Your task to perform on an android device: install app "WhatsApp Messenger" Image 0: 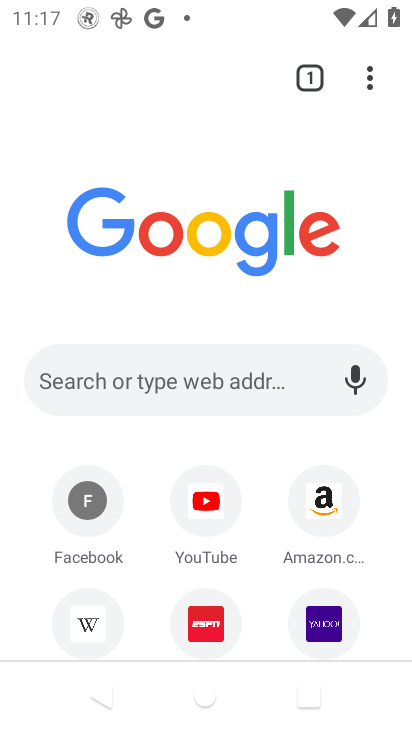
Step 0: press back button
Your task to perform on an android device: install app "WhatsApp Messenger" Image 1: 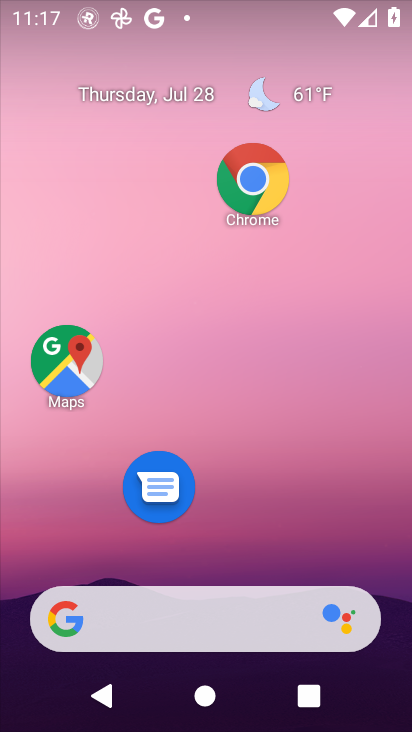
Step 1: click (160, 99)
Your task to perform on an android device: install app "WhatsApp Messenger" Image 2: 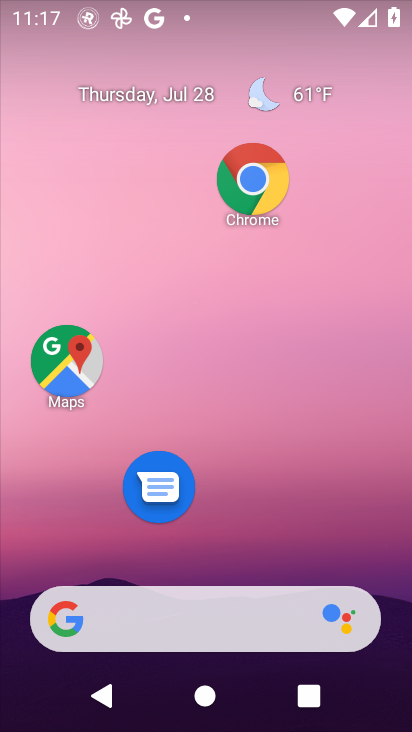
Step 2: drag from (214, 361) to (202, 45)
Your task to perform on an android device: install app "WhatsApp Messenger" Image 3: 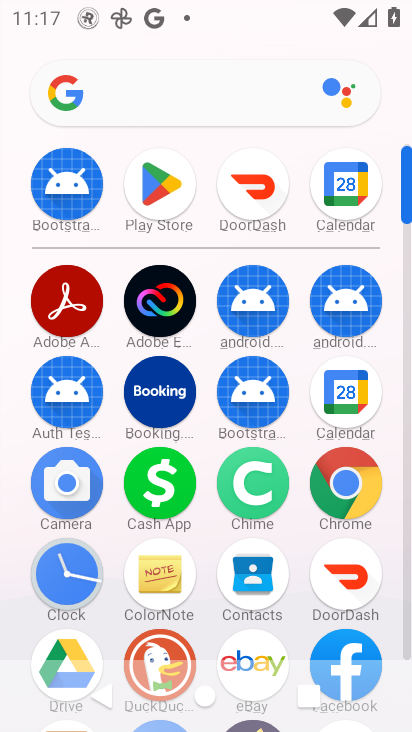
Step 3: drag from (300, 271) to (316, 583)
Your task to perform on an android device: install app "WhatsApp Messenger" Image 4: 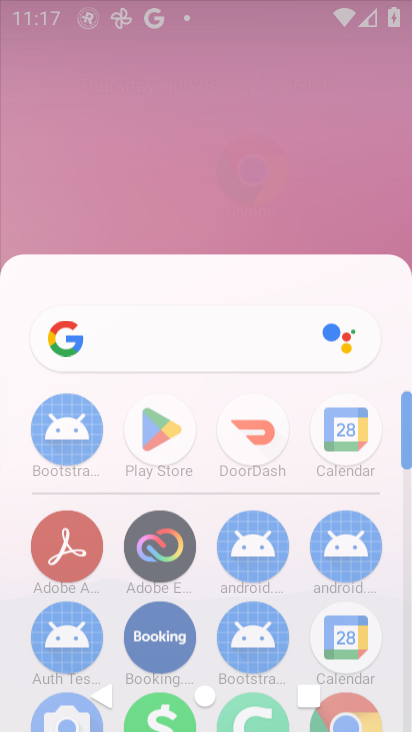
Step 4: drag from (289, 413) to (293, 504)
Your task to perform on an android device: install app "WhatsApp Messenger" Image 5: 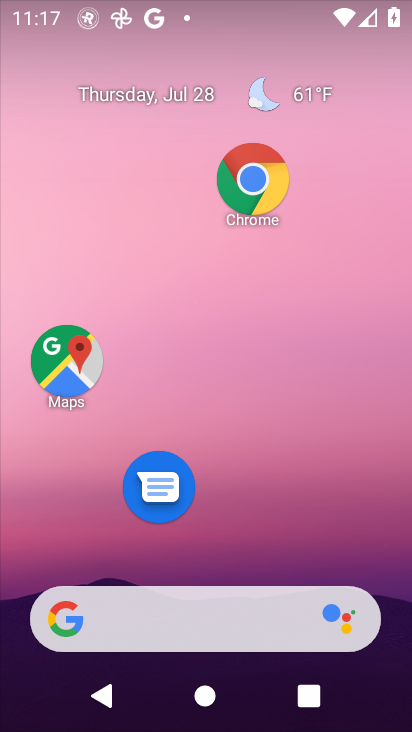
Step 5: drag from (281, 395) to (281, 548)
Your task to perform on an android device: install app "WhatsApp Messenger" Image 6: 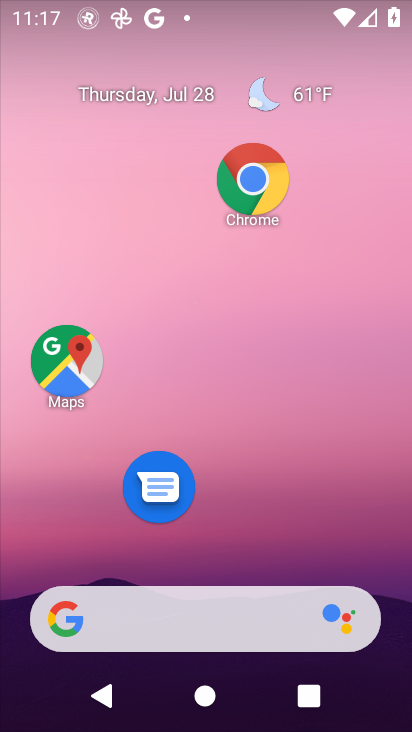
Step 6: drag from (244, 697) to (197, 211)
Your task to perform on an android device: install app "WhatsApp Messenger" Image 7: 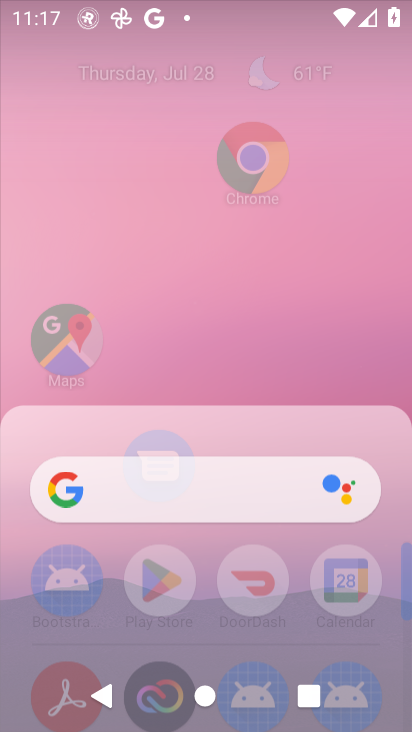
Step 7: drag from (246, 587) to (246, 245)
Your task to perform on an android device: install app "WhatsApp Messenger" Image 8: 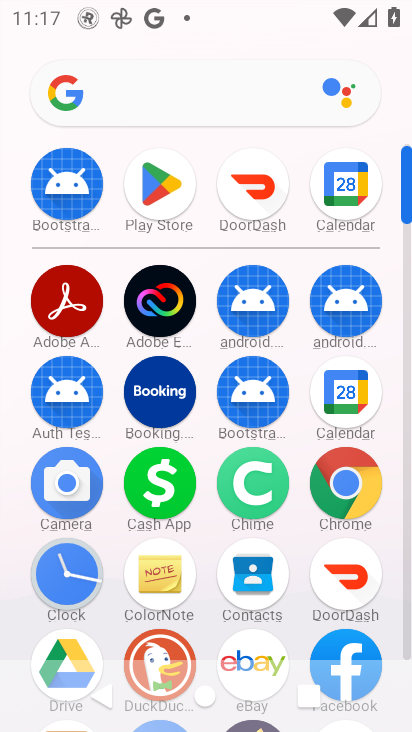
Step 8: drag from (235, 556) to (235, 248)
Your task to perform on an android device: install app "WhatsApp Messenger" Image 9: 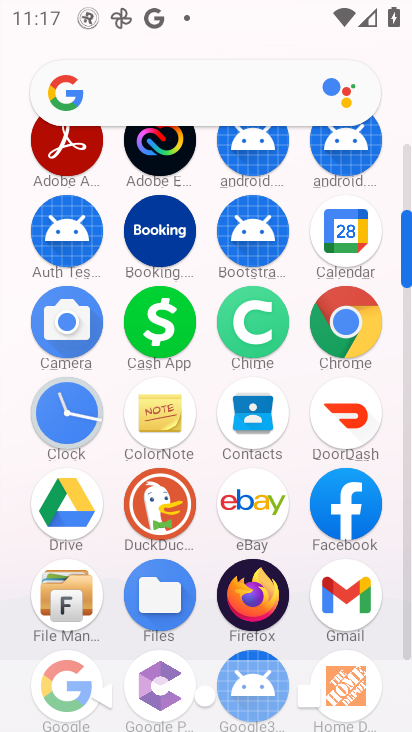
Step 9: drag from (241, 481) to (241, 245)
Your task to perform on an android device: install app "WhatsApp Messenger" Image 10: 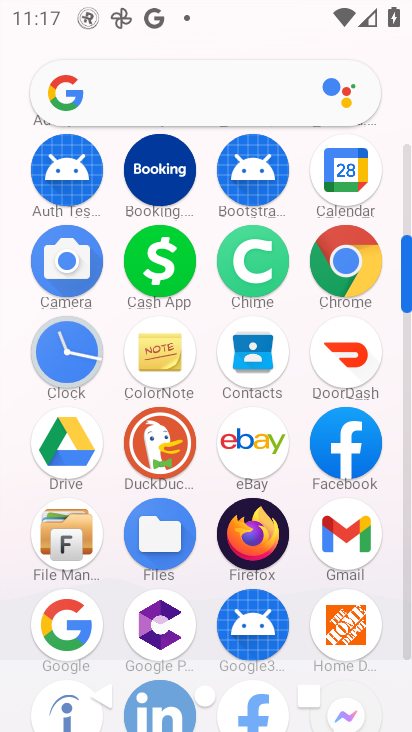
Step 10: drag from (215, 451) to (215, 190)
Your task to perform on an android device: install app "WhatsApp Messenger" Image 11: 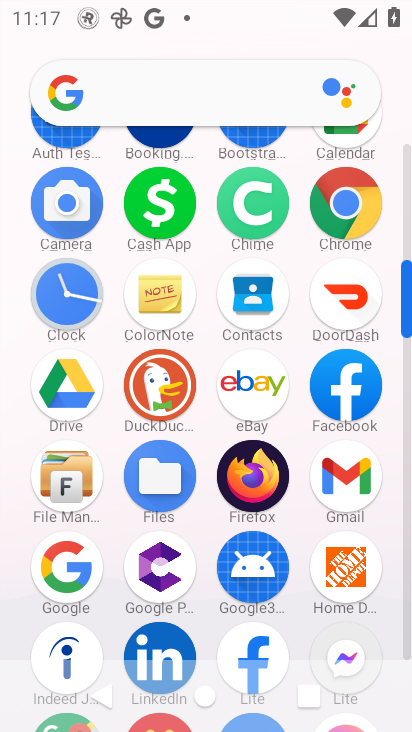
Step 11: drag from (275, 578) to (234, 160)
Your task to perform on an android device: install app "WhatsApp Messenger" Image 12: 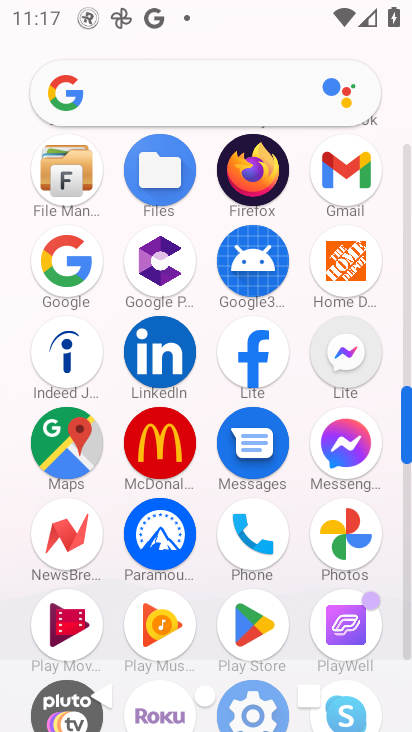
Step 12: drag from (235, 329) to (204, 125)
Your task to perform on an android device: install app "WhatsApp Messenger" Image 13: 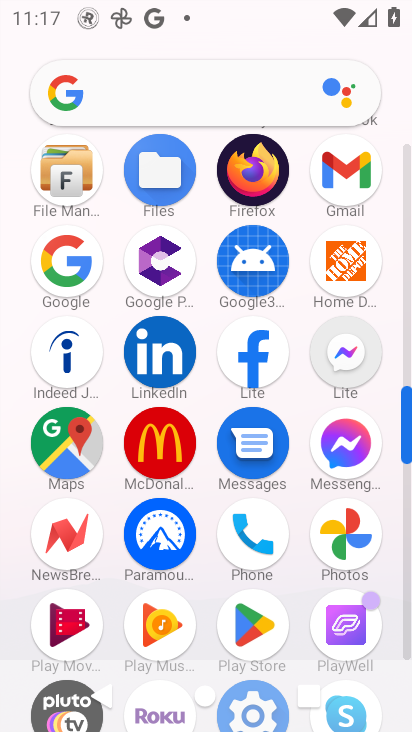
Step 13: drag from (222, 462) to (219, 182)
Your task to perform on an android device: install app "WhatsApp Messenger" Image 14: 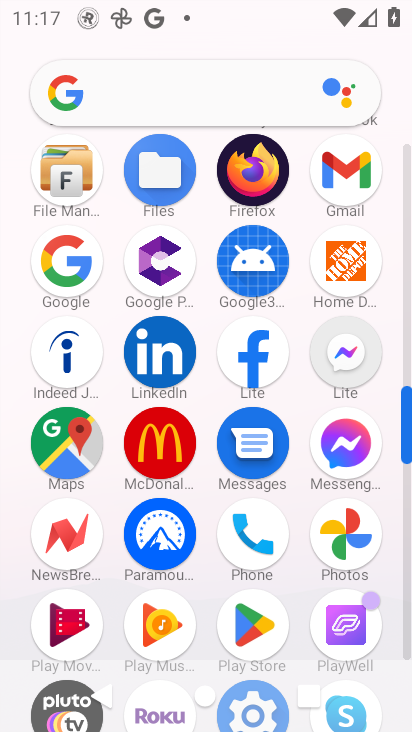
Step 14: drag from (239, 513) to (214, 209)
Your task to perform on an android device: install app "WhatsApp Messenger" Image 15: 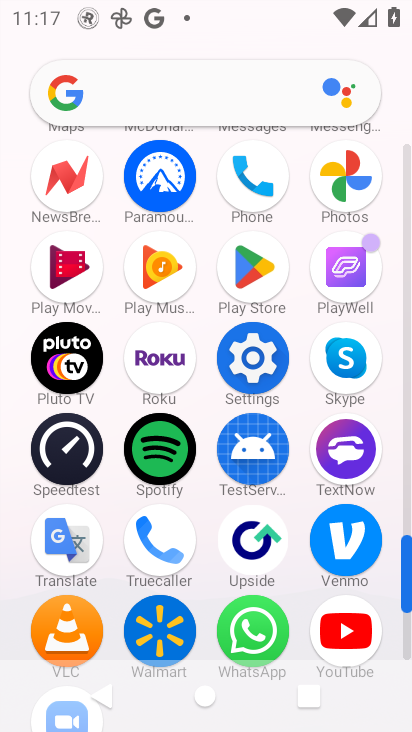
Step 15: click (244, 610)
Your task to perform on an android device: install app "WhatsApp Messenger" Image 16: 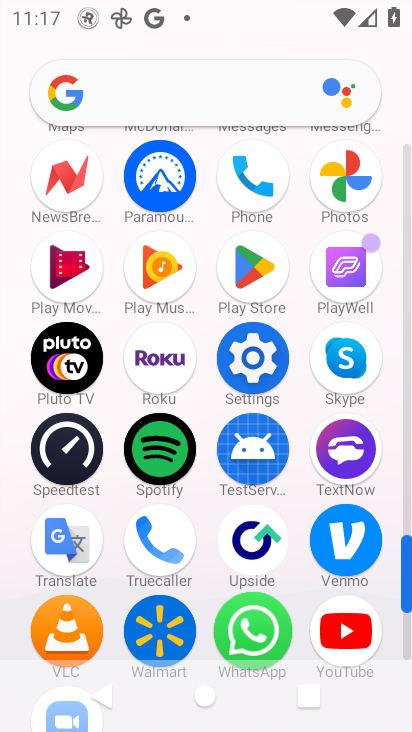
Step 16: click (248, 601)
Your task to perform on an android device: install app "WhatsApp Messenger" Image 17: 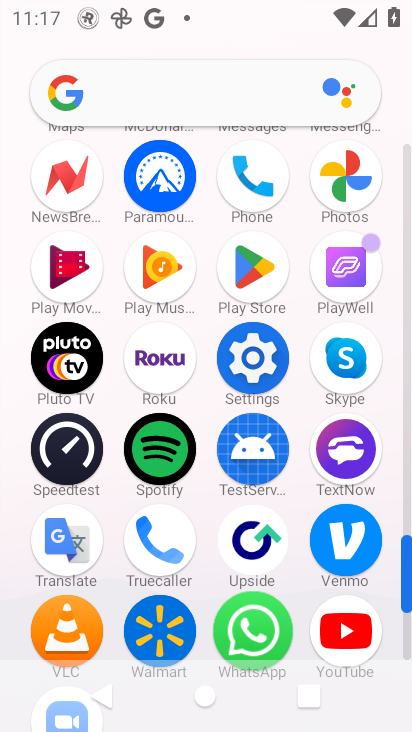
Step 17: click (249, 602)
Your task to perform on an android device: install app "WhatsApp Messenger" Image 18: 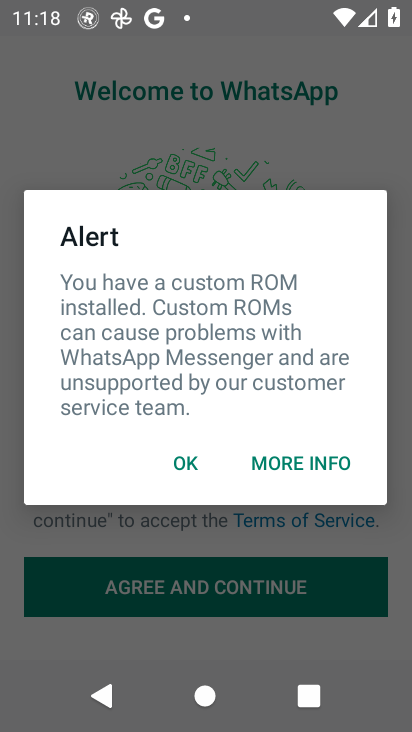
Step 18: click (201, 473)
Your task to perform on an android device: install app "WhatsApp Messenger" Image 19: 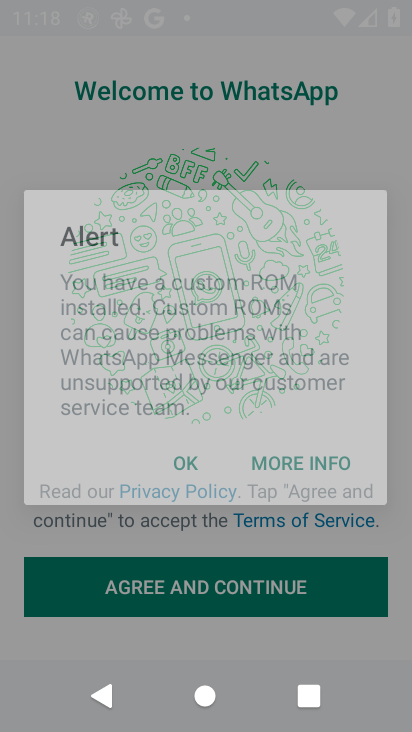
Step 19: click (201, 473)
Your task to perform on an android device: install app "WhatsApp Messenger" Image 20: 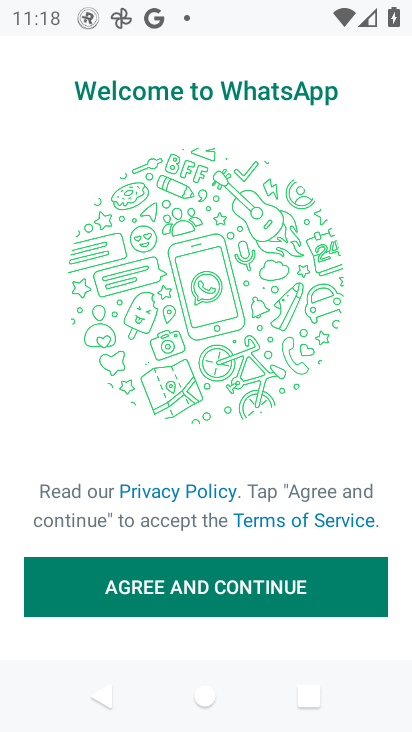
Step 20: click (279, 595)
Your task to perform on an android device: install app "WhatsApp Messenger" Image 21: 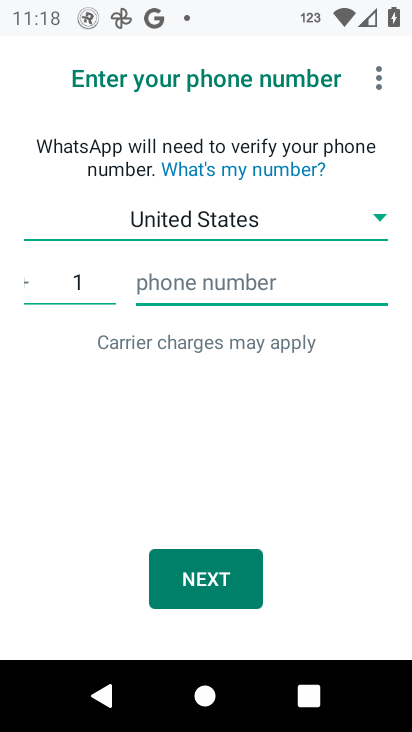
Step 21: task complete